Your task to perform on an android device: Go to privacy settings Image 0: 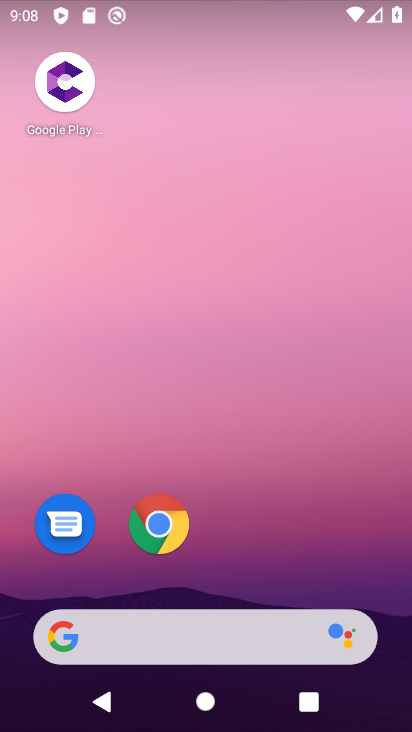
Step 0: drag from (250, 583) to (276, 74)
Your task to perform on an android device: Go to privacy settings Image 1: 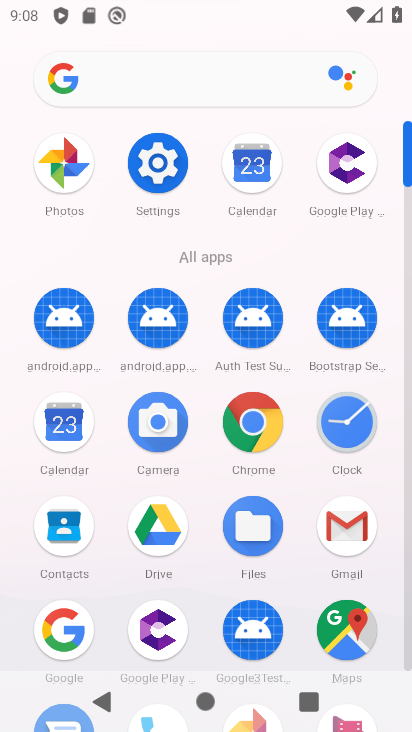
Step 1: click (179, 164)
Your task to perform on an android device: Go to privacy settings Image 2: 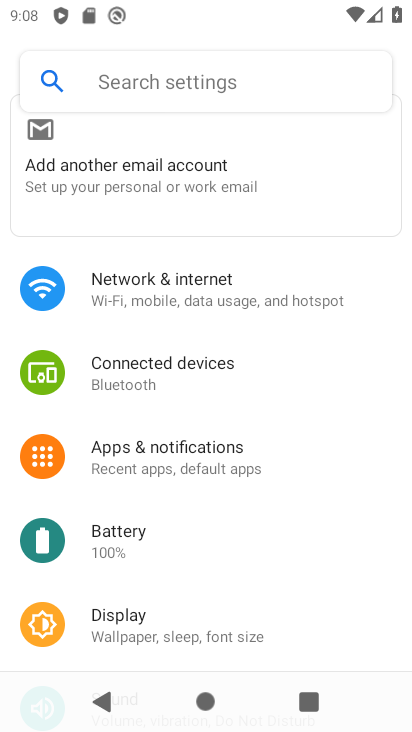
Step 2: drag from (167, 598) to (177, 252)
Your task to perform on an android device: Go to privacy settings Image 3: 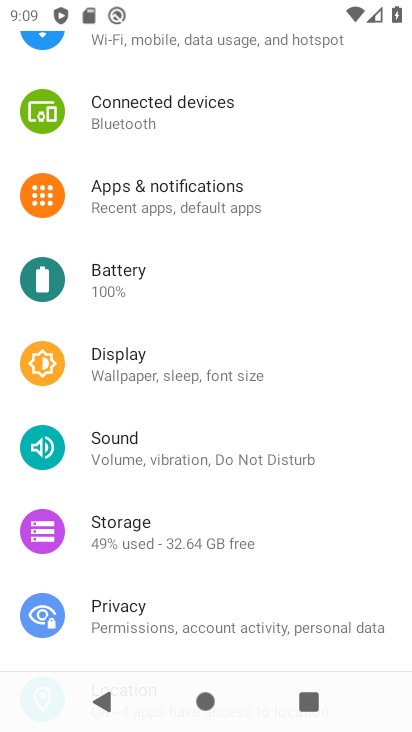
Step 3: click (174, 609)
Your task to perform on an android device: Go to privacy settings Image 4: 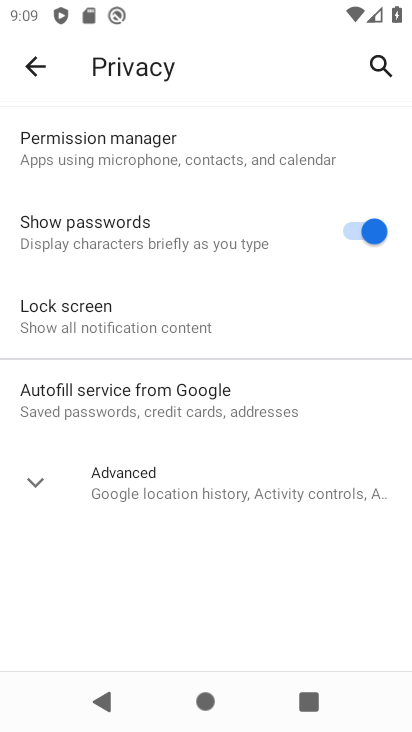
Step 4: task complete